Your task to perform on an android device: Open the calendar and show me this week's events? Image 0: 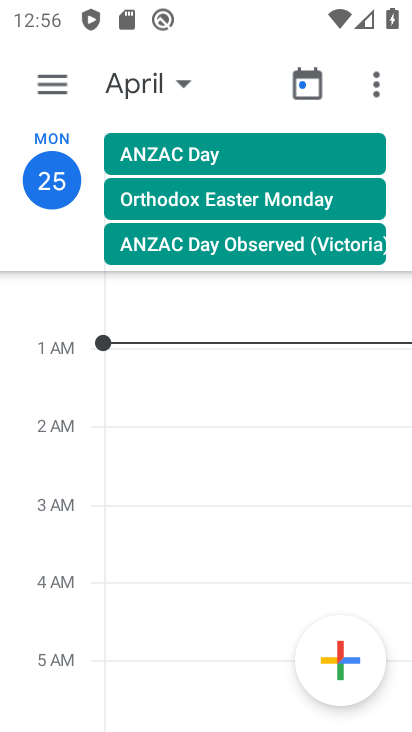
Step 0: click (45, 82)
Your task to perform on an android device: Open the calendar and show me this week's events? Image 1: 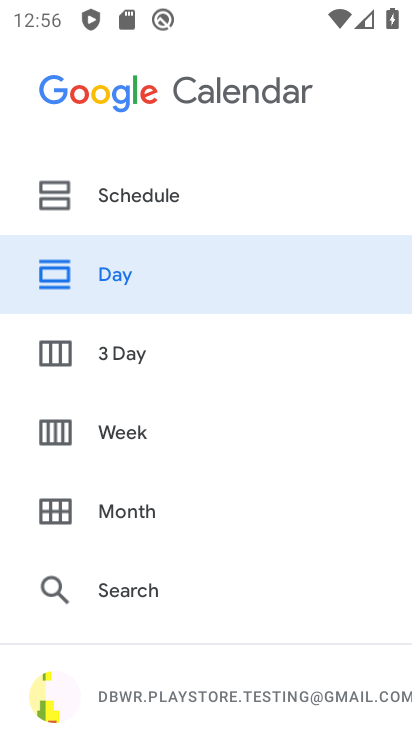
Step 1: drag from (166, 579) to (149, 171)
Your task to perform on an android device: Open the calendar and show me this week's events? Image 2: 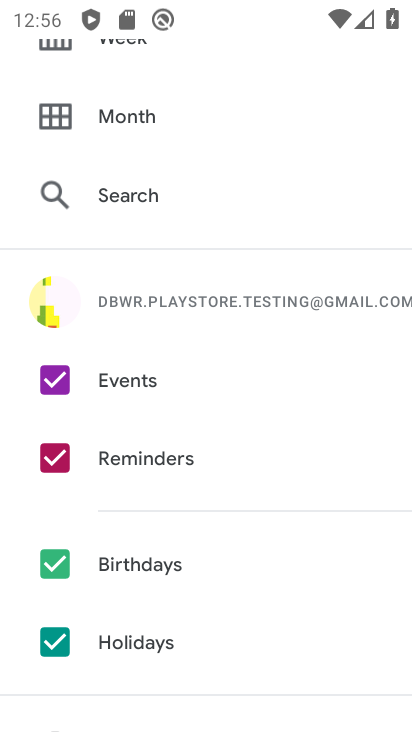
Step 2: click (51, 453)
Your task to perform on an android device: Open the calendar and show me this week's events? Image 3: 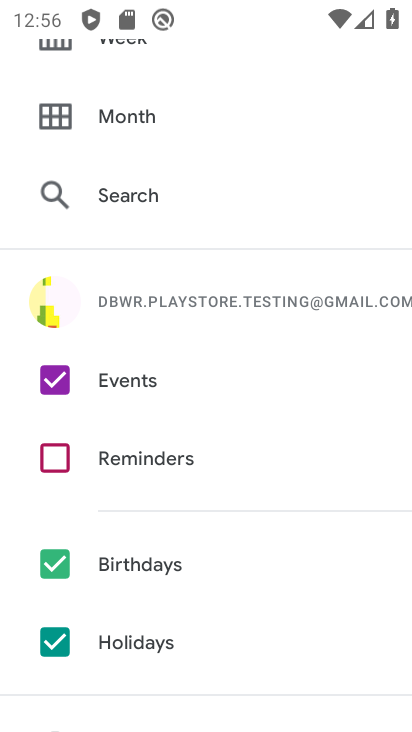
Step 3: click (56, 566)
Your task to perform on an android device: Open the calendar and show me this week's events? Image 4: 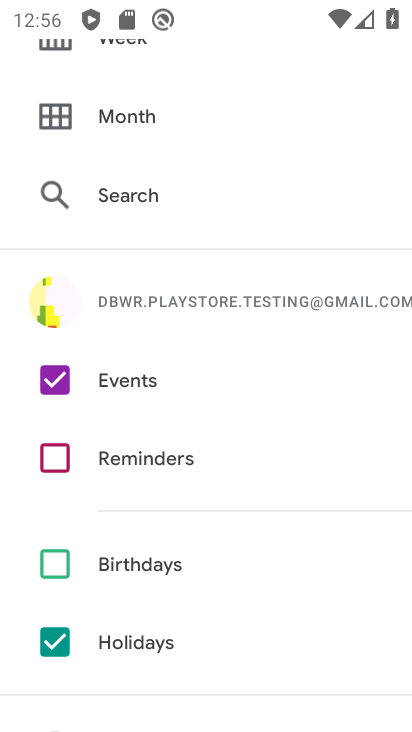
Step 4: click (56, 639)
Your task to perform on an android device: Open the calendar and show me this week's events? Image 5: 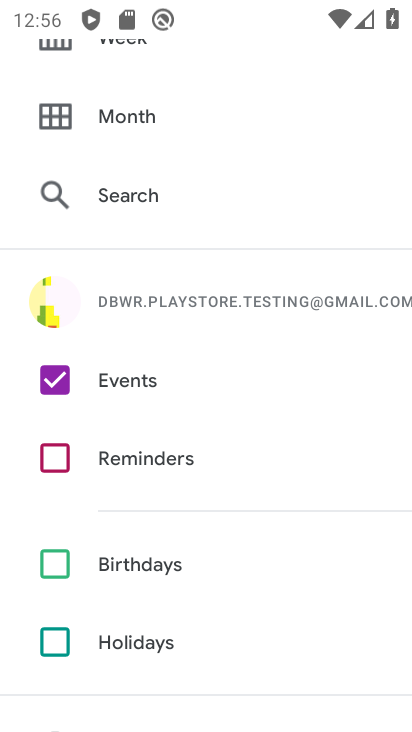
Step 5: drag from (219, 152) to (219, 539)
Your task to perform on an android device: Open the calendar and show me this week's events? Image 6: 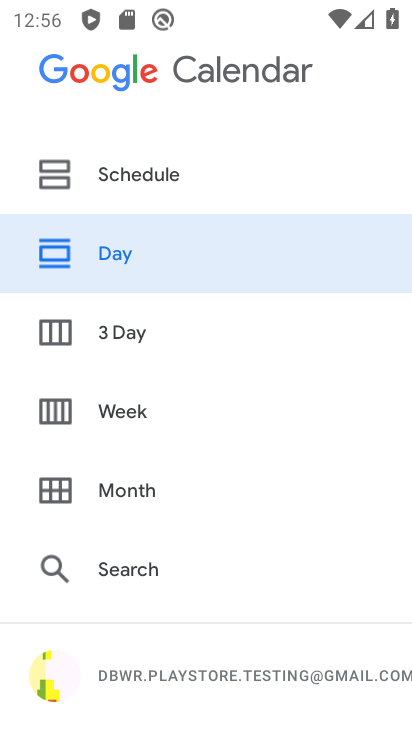
Step 6: click (147, 411)
Your task to perform on an android device: Open the calendar and show me this week's events? Image 7: 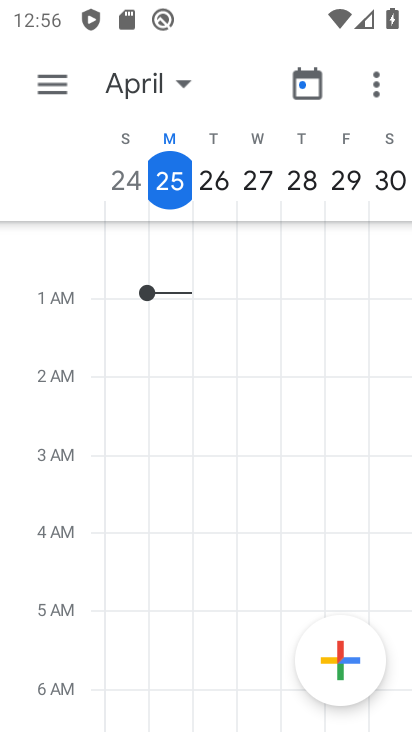
Step 7: task complete